Your task to perform on an android device: open a bookmark in the chrome app Image 0: 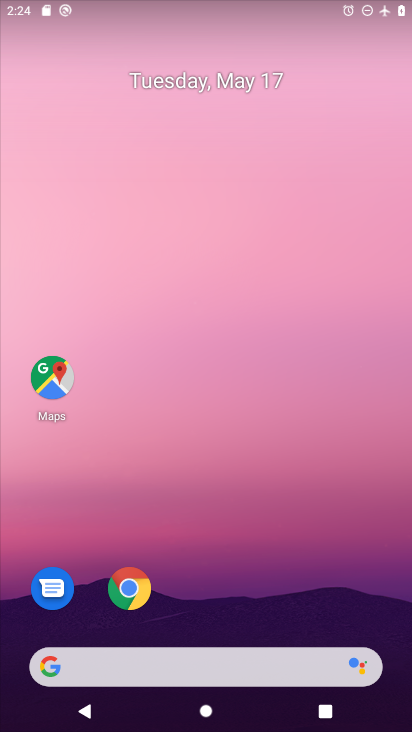
Step 0: click (132, 590)
Your task to perform on an android device: open a bookmark in the chrome app Image 1: 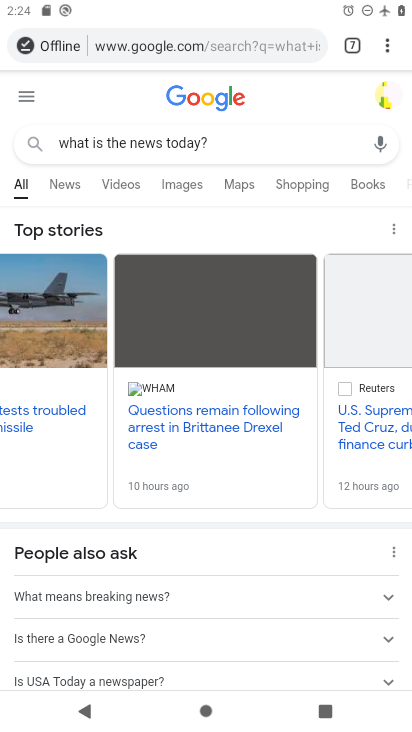
Step 1: click (386, 40)
Your task to perform on an android device: open a bookmark in the chrome app Image 2: 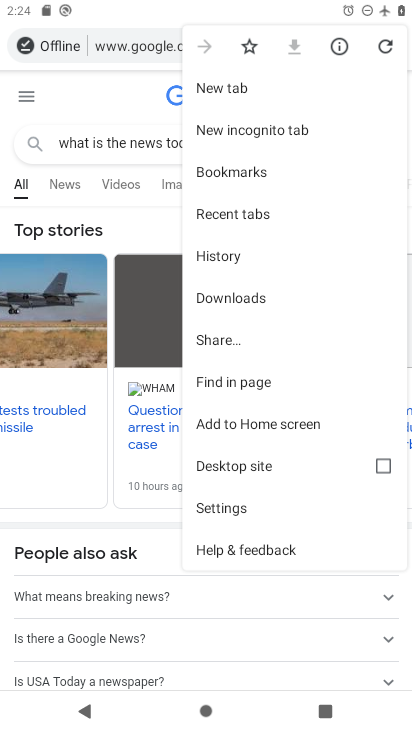
Step 2: click (227, 180)
Your task to perform on an android device: open a bookmark in the chrome app Image 3: 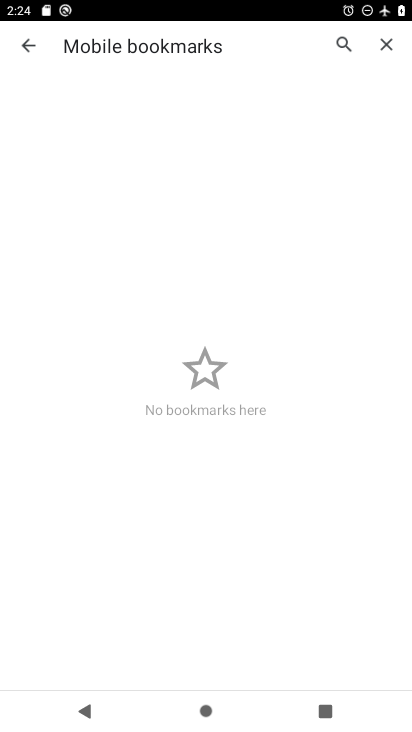
Step 3: task complete